Your task to perform on an android device: install app "Upside-Cash back on gas & food" Image 0: 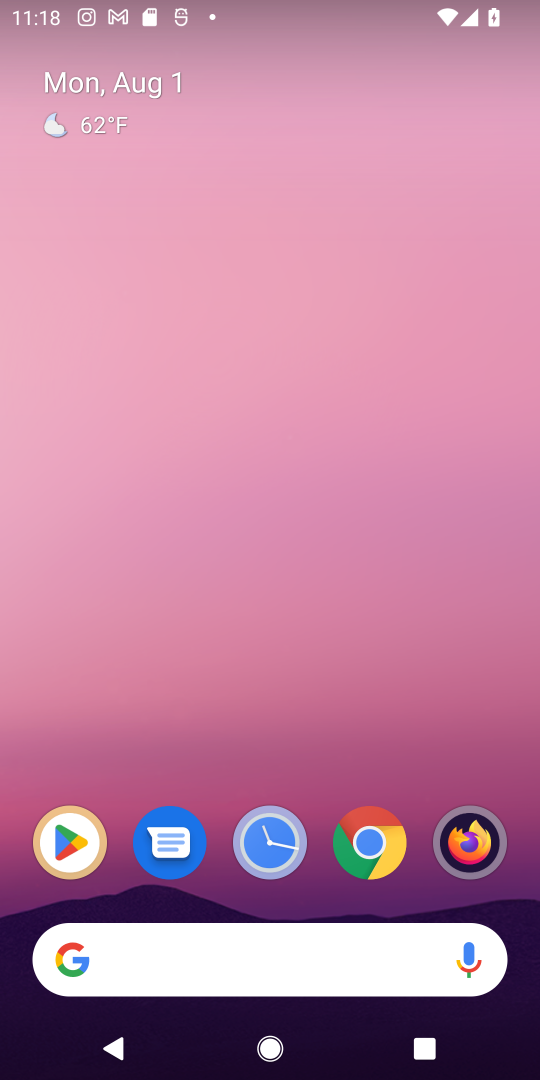
Step 0: click (62, 827)
Your task to perform on an android device: install app "Upside-Cash back on gas & food" Image 1: 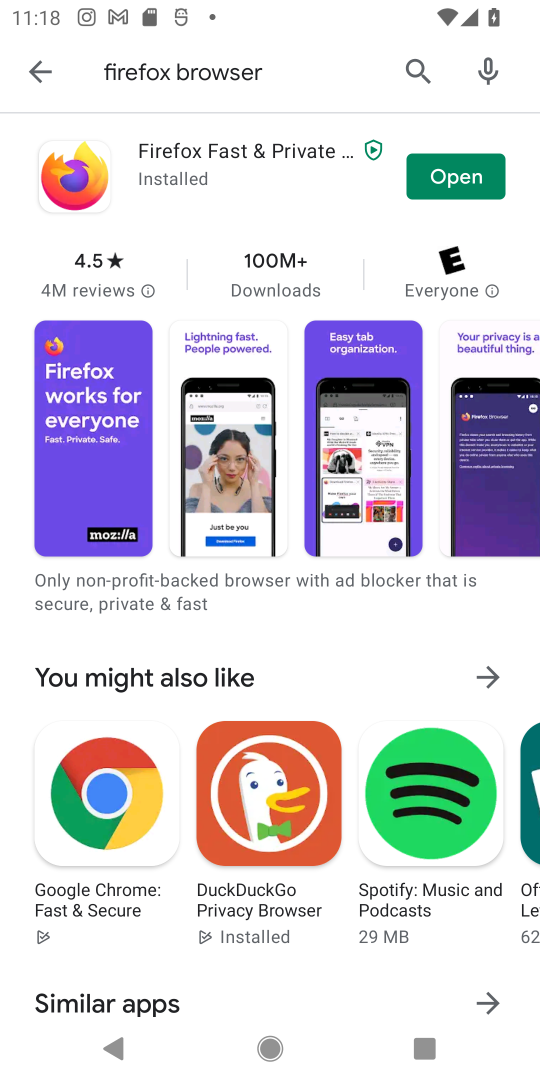
Step 1: click (403, 68)
Your task to perform on an android device: install app "Upside-Cash back on gas & food" Image 2: 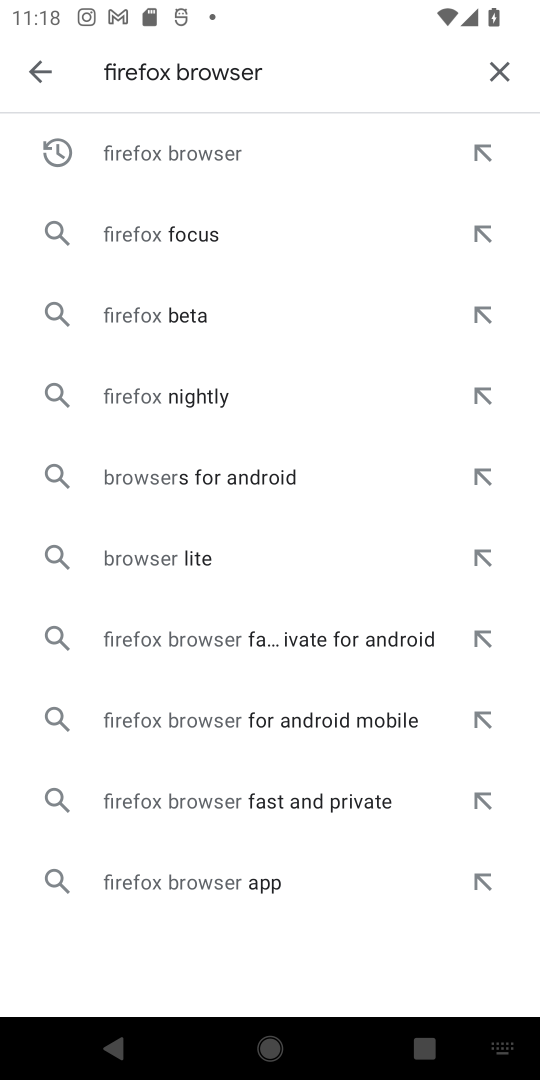
Step 2: click (499, 66)
Your task to perform on an android device: install app "Upside-Cash back on gas & food" Image 3: 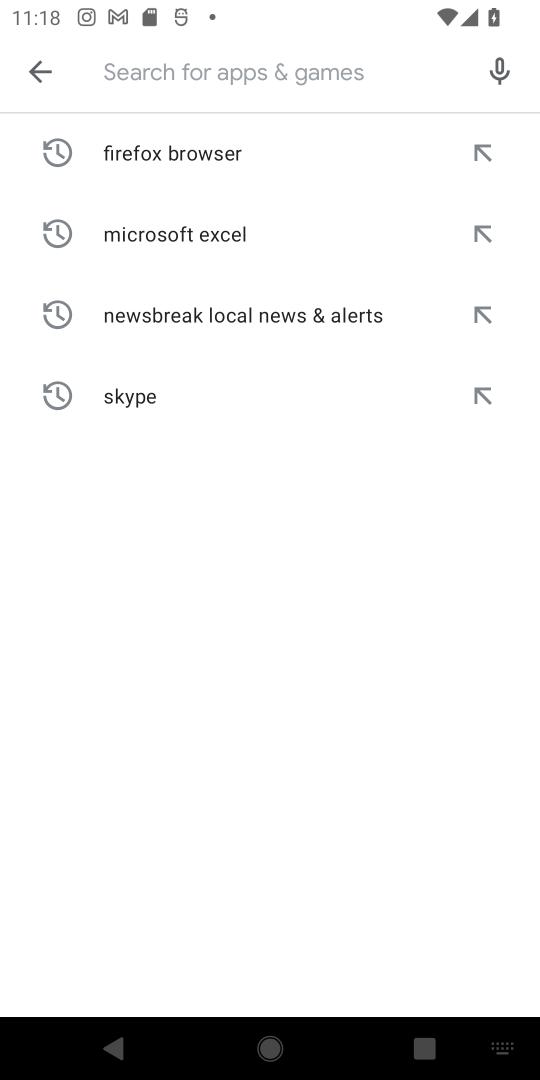
Step 3: click (290, 69)
Your task to perform on an android device: install app "Upside-Cash back on gas & food" Image 4: 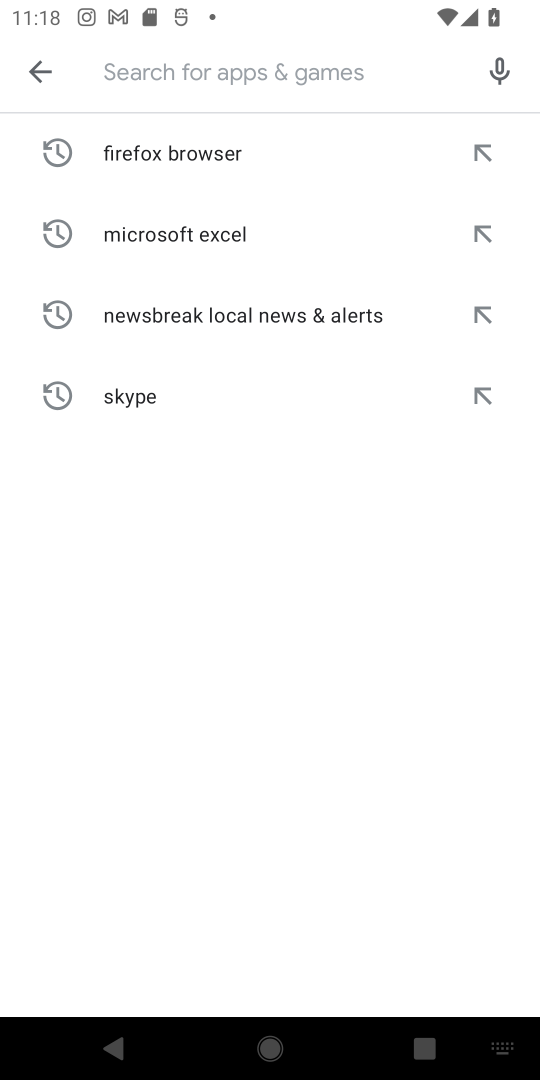
Step 4: click (189, 65)
Your task to perform on an android device: install app "Upside-Cash back on gas & food" Image 5: 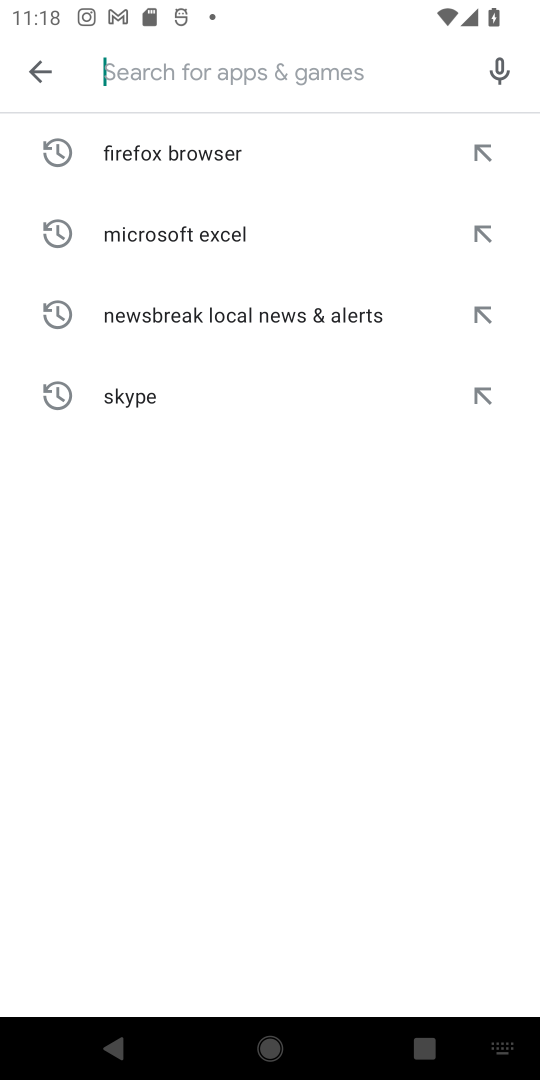
Step 5: type "Upside-Cash back on gas & food"
Your task to perform on an android device: install app "Upside-Cash back on gas & food" Image 6: 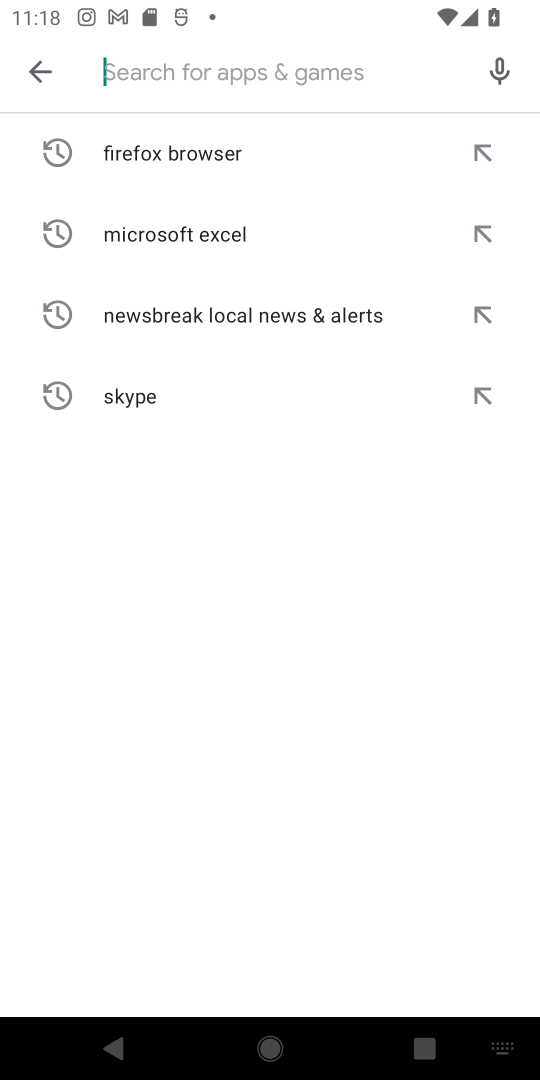
Step 6: click (178, 592)
Your task to perform on an android device: install app "Upside-Cash back on gas & food" Image 7: 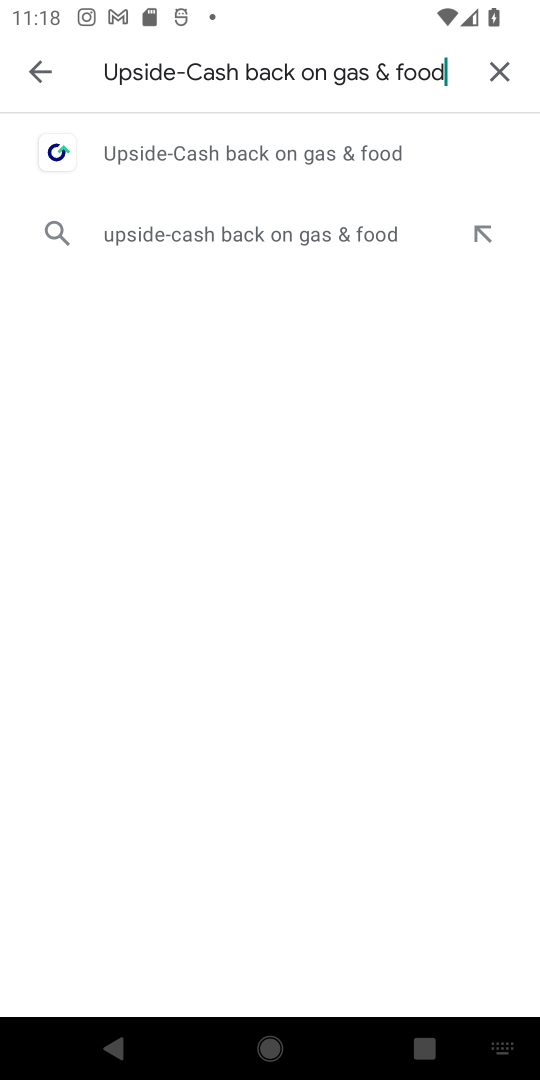
Step 7: click (196, 155)
Your task to perform on an android device: install app "Upside-Cash back on gas & food" Image 8: 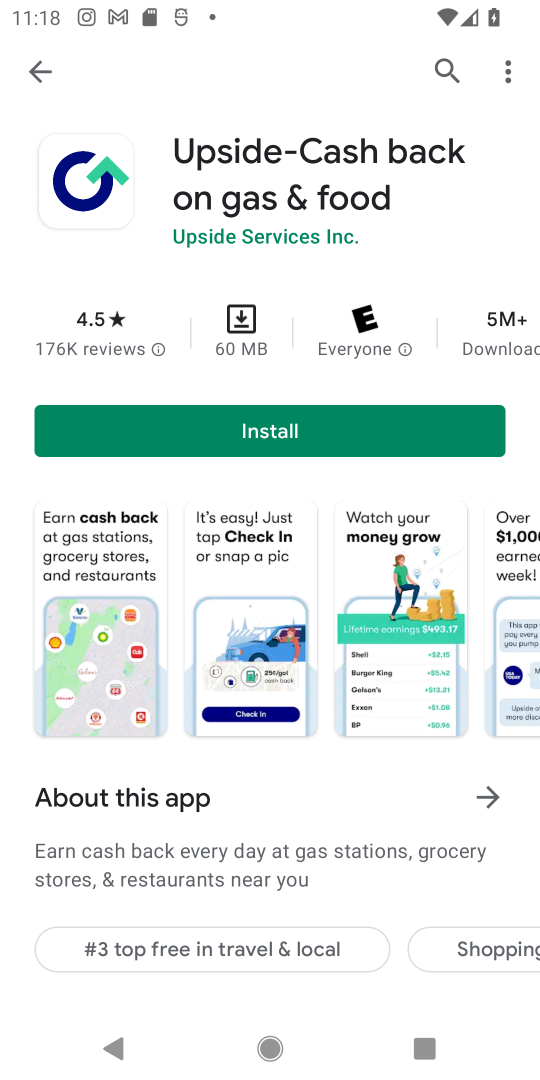
Step 8: click (313, 424)
Your task to perform on an android device: install app "Upside-Cash back on gas & food" Image 9: 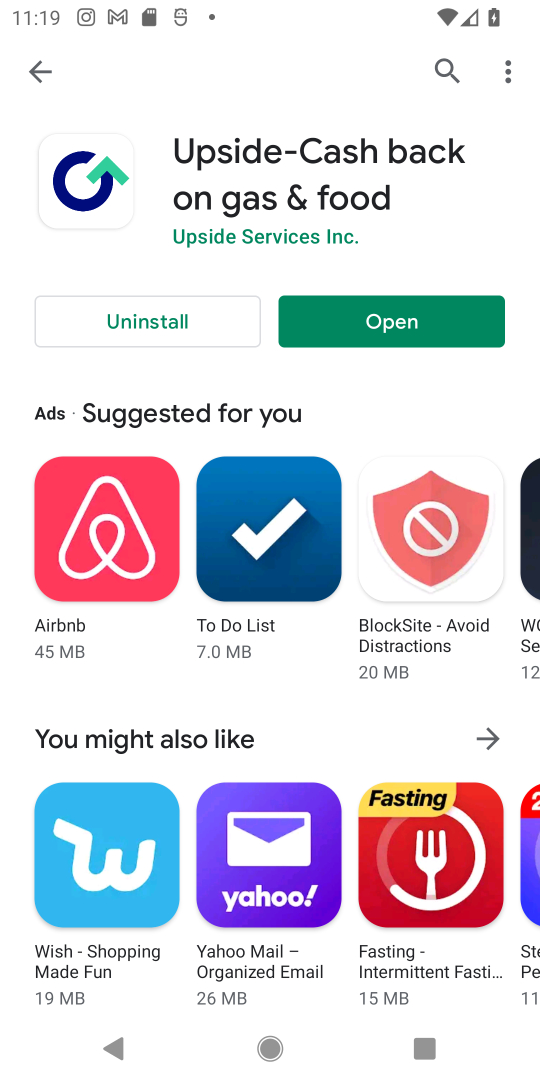
Step 9: task complete